Your task to perform on an android device: What's the weather going to be this weekend? Image 0: 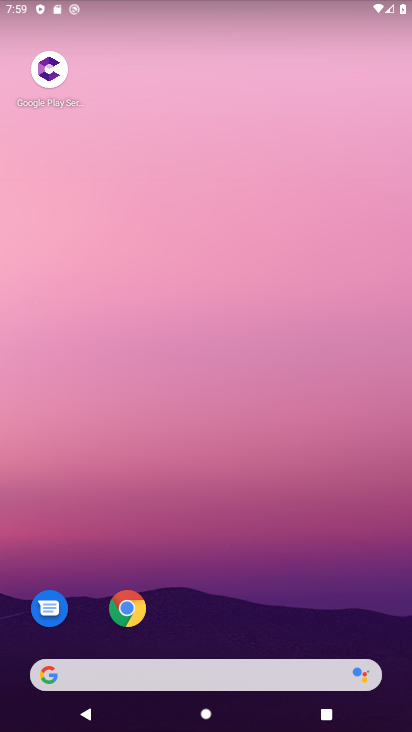
Step 0: drag from (213, 658) to (168, 210)
Your task to perform on an android device: What's the weather going to be this weekend? Image 1: 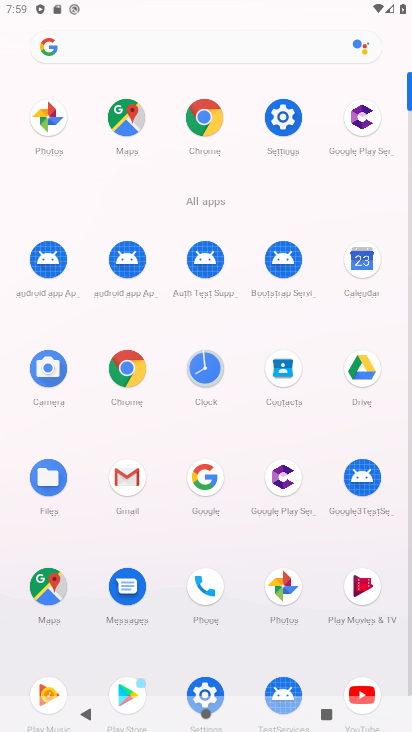
Step 1: click (197, 485)
Your task to perform on an android device: What's the weather going to be this weekend? Image 2: 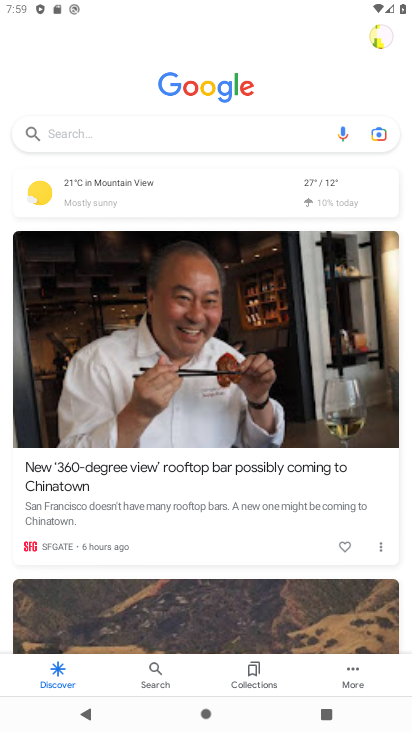
Step 2: click (47, 194)
Your task to perform on an android device: What's the weather going to be this weekend? Image 3: 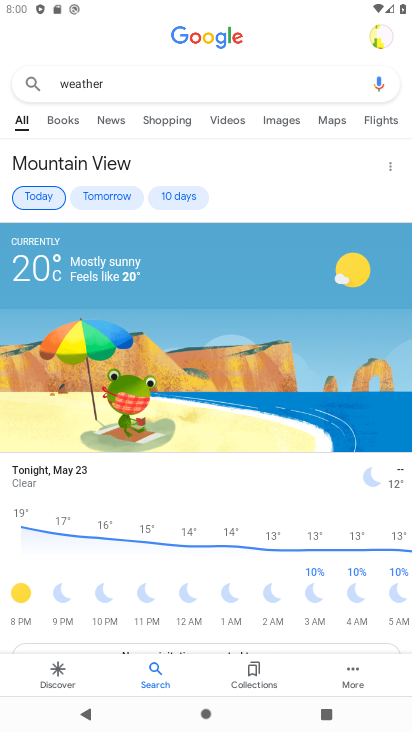
Step 3: click (165, 200)
Your task to perform on an android device: What's the weather going to be this weekend? Image 4: 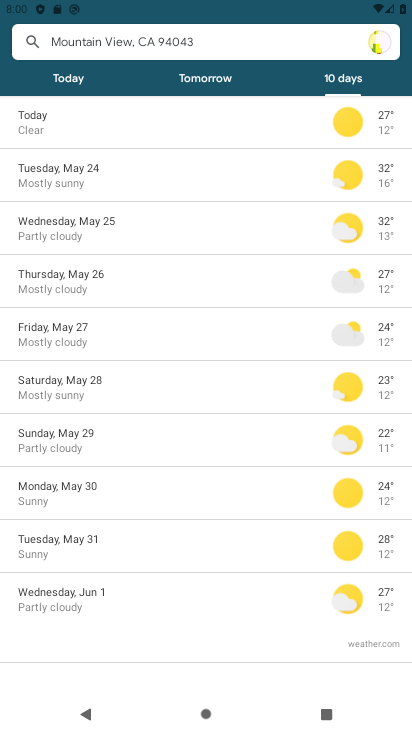
Step 4: task complete